Your task to perform on an android device: Go to wifi settings Image 0: 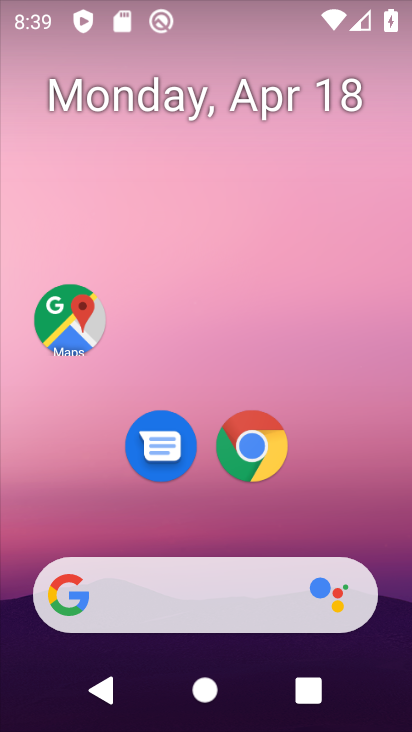
Step 0: press home button
Your task to perform on an android device: Go to wifi settings Image 1: 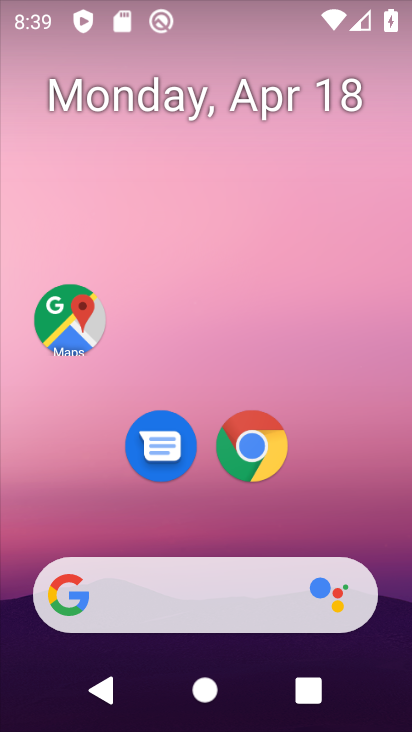
Step 1: drag from (204, 516) to (240, 29)
Your task to perform on an android device: Go to wifi settings Image 2: 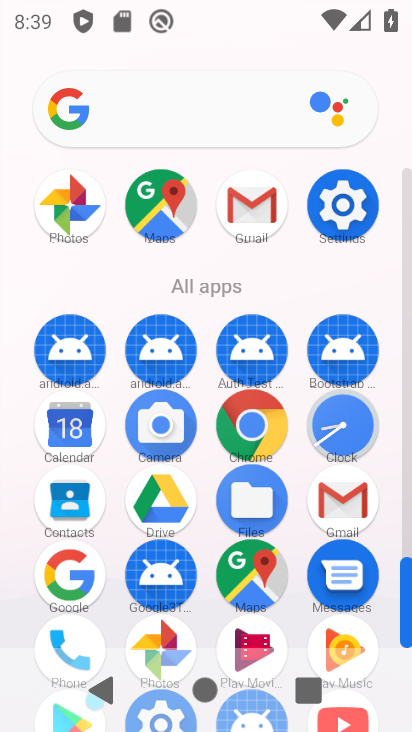
Step 2: click (342, 197)
Your task to perform on an android device: Go to wifi settings Image 3: 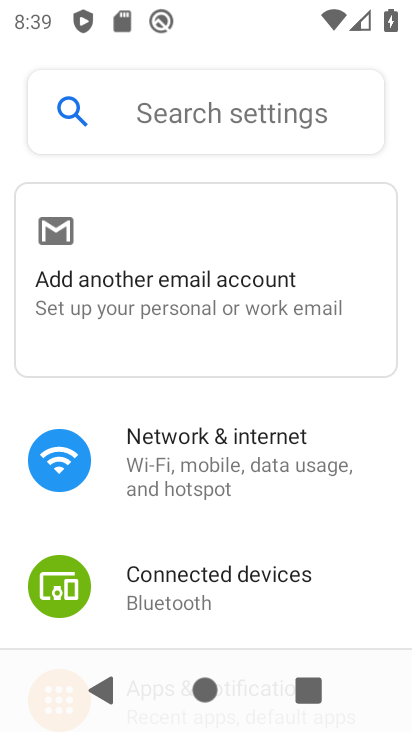
Step 3: click (113, 461)
Your task to perform on an android device: Go to wifi settings Image 4: 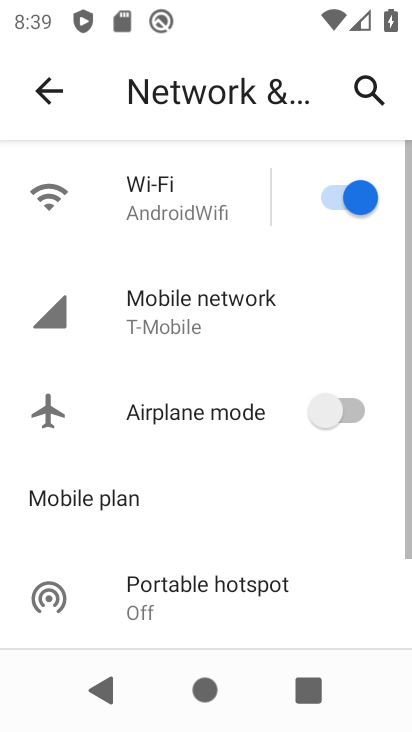
Step 4: click (112, 189)
Your task to perform on an android device: Go to wifi settings Image 5: 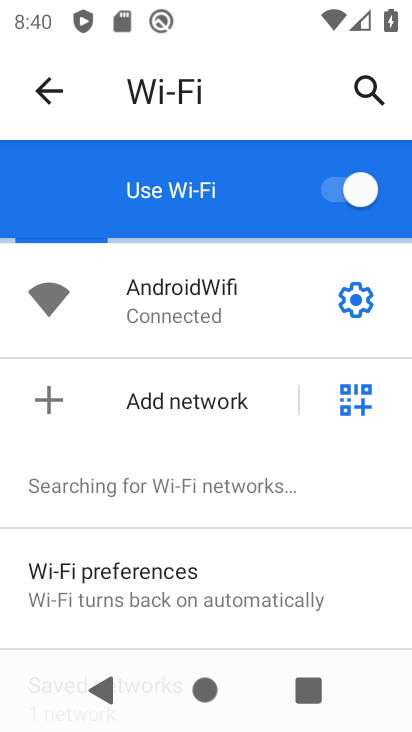
Step 5: task complete